Your task to perform on an android device: set the timer Image 0: 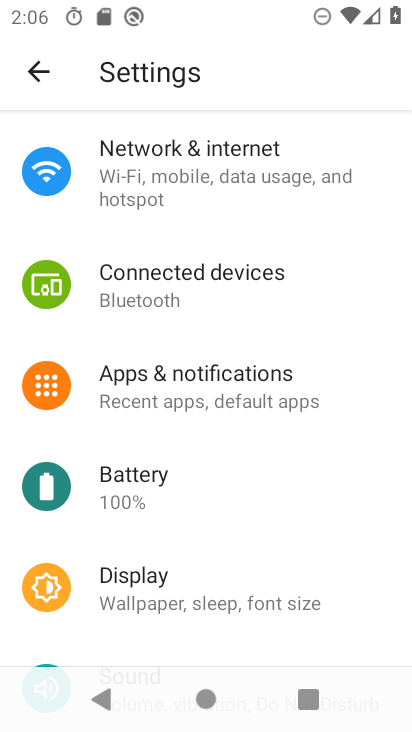
Step 0: press home button
Your task to perform on an android device: set the timer Image 1: 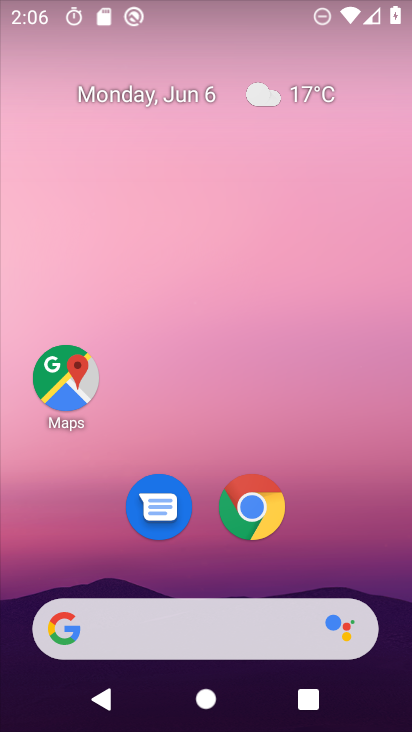
Step 1: drag from (326, 694) to (170, 219)
Your task to perform on an android device: set the timer Image 2: 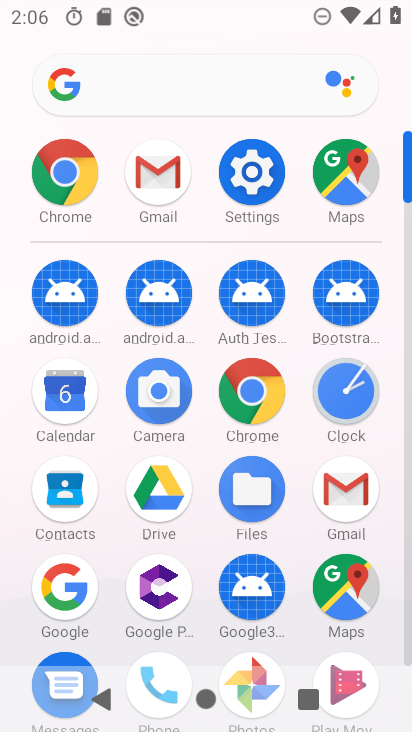
Step 2: click (332, 406)
Your task to perform on an android device: set the timer Image 3: 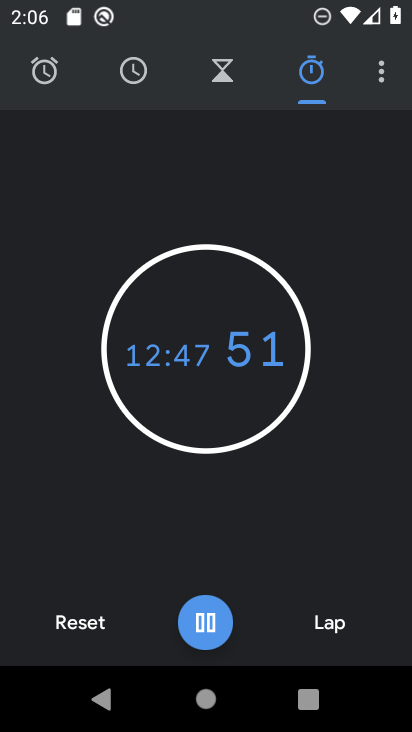
Step 3: click (221, 76)
Your task to perform on an android device: set the timer Image 4: 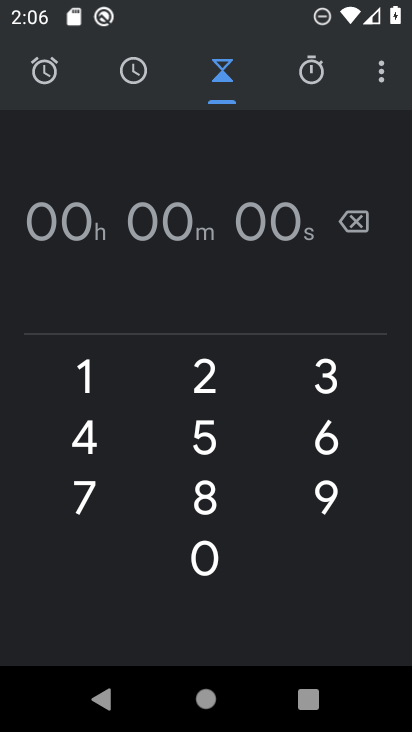
Step 4: click (224, 442)
Your task to perform on an android device: set the timer Image 5: 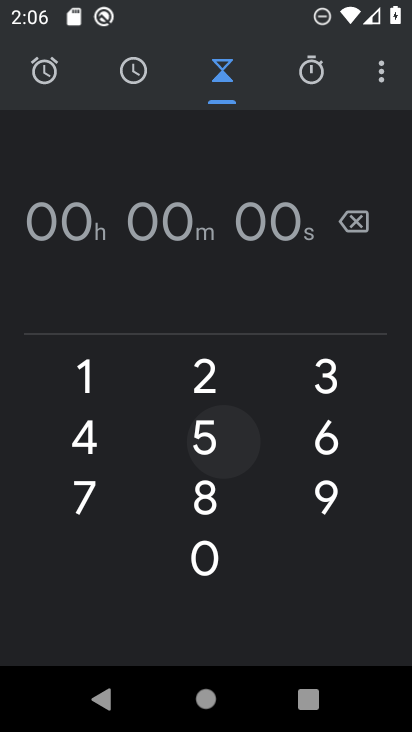
Step 5: click (143, 433)
Your task to perform on an android device: set the timer Image 6: 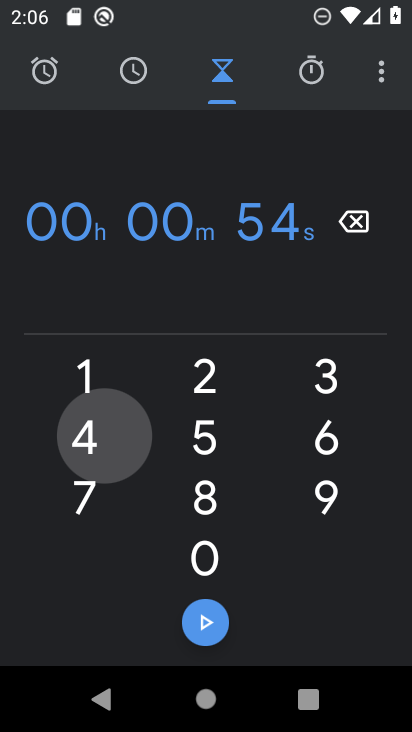
Step 6: click (203, 488)
Your task to perform on an android device: set the timer Image 7: 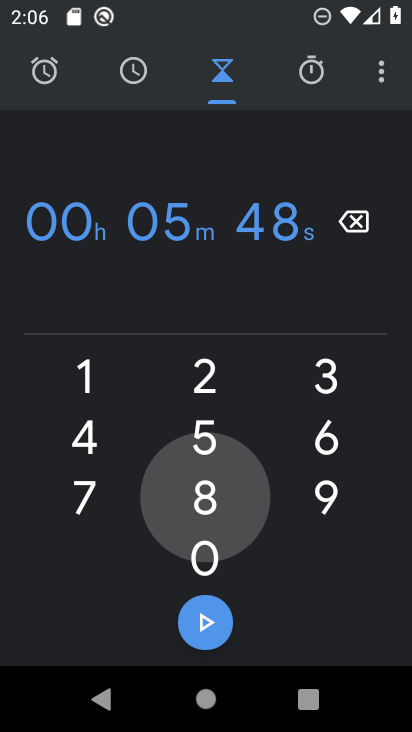
Step 7: click (230, 514)
Your task to perform on an android device: set the timer Image 8: 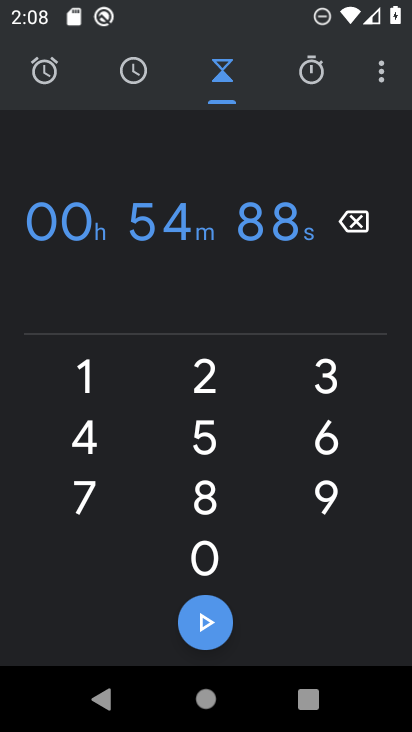
Step 8: task complete